Your task to perform on an android device: find snoozed emails in the gmail app Image 0: 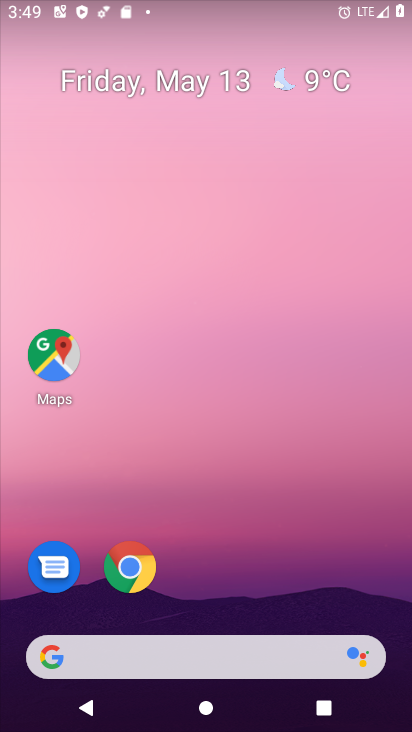
Step 0: drag from (302, 568) to (295, 1)
Your task to perform on an android device: find snoozed emails in the gmail app Image 1: 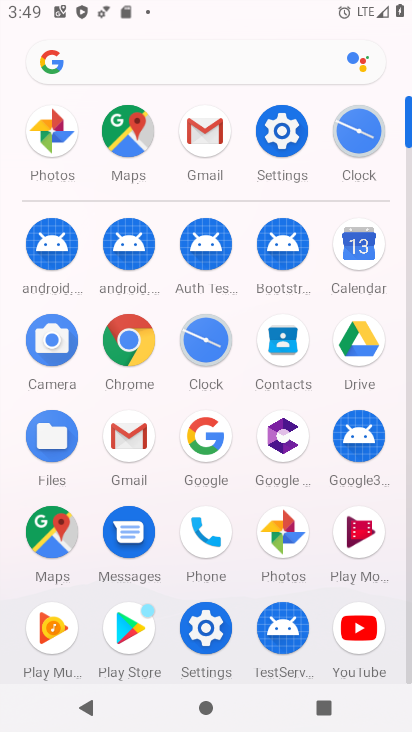
Step 1: click (209, 141)
Your task to perform on an android device: find snoozed emails in the gmail app Image 2: 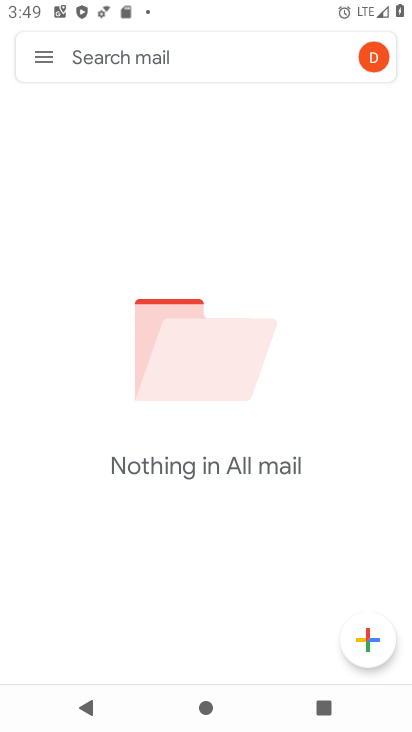
Step 2: click (49, 62)
Your task to perform on an android device: find snoozed emails in the gmail app Image 3: 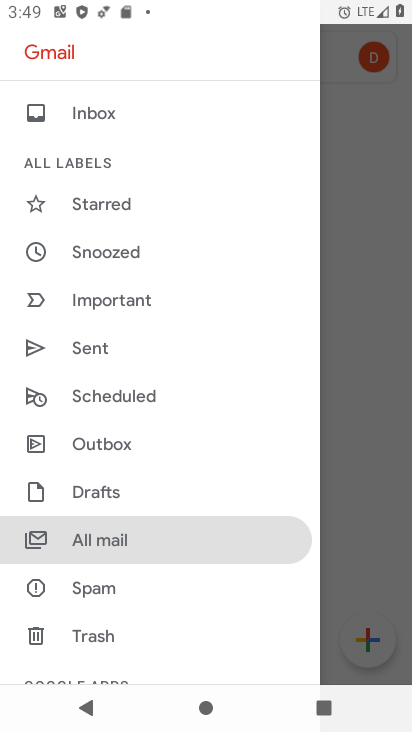
Step 3: click (119, 251)
Your task to perform on an android device: find snoozed emails in the gmail app Image 4: 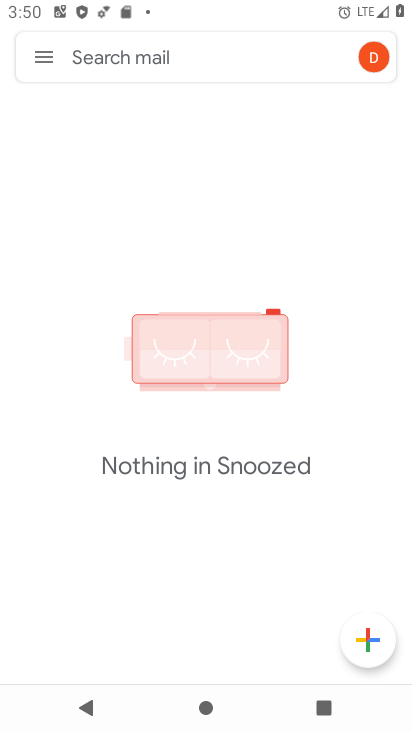
Step 4: task complete